Your task to perform on an android device: Open the calendar app, open the side menu, and click the "Day" option Image 0: 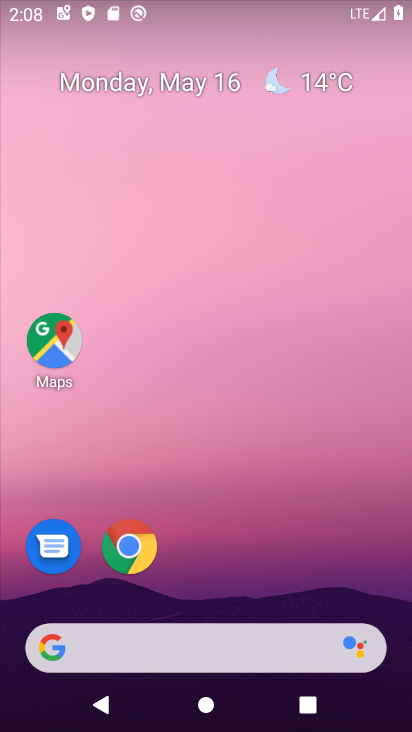
Step 0: drag from (231, 677) to (230, 256)
Your task to perform on an android device: Open the calendar app, open the side menu, and click the "Day" option Image 1: 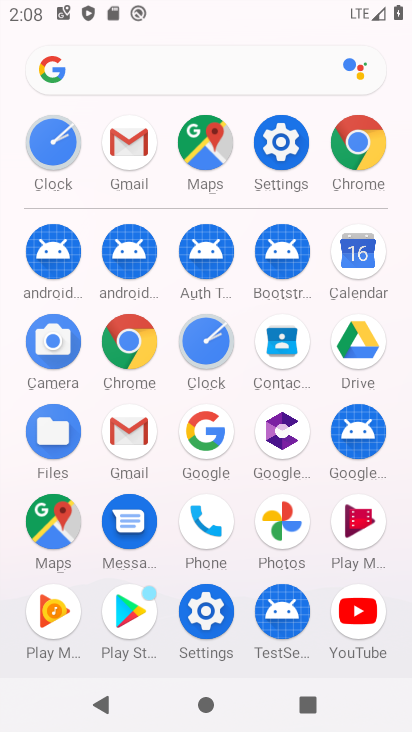
Step 1: click (369, 260)
Your task to perform on an android device: Open the calendar app, open the side menu, and click the "Day" option Image 2: 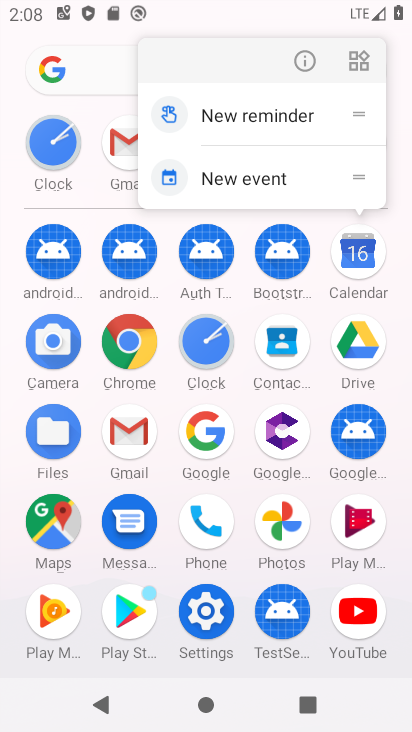
Step 2: click (361, 270)
Your task to perform on an android device: Open the calendar app, open the side menu, and click the "Day" option Image 3: 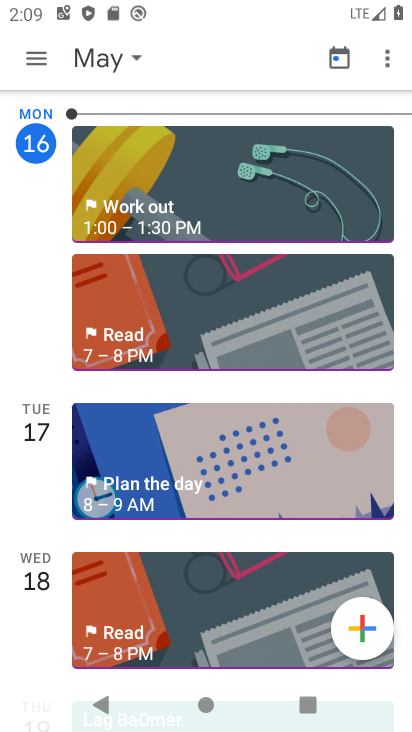
Step 3: click (36, 44)
Your task to perform on an android device: Open the calendar app, open the side menu, and click the "Day" option Image 4: 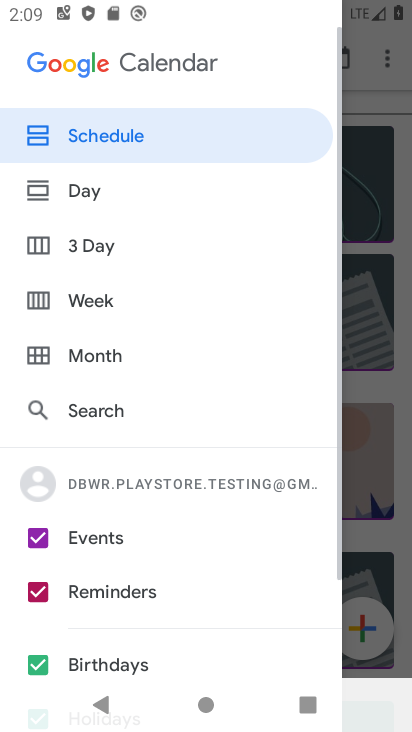
Step 4: click (115, 194)
Your task to perform on an android device: Open the calendar app, open the side menu, and click the "Day" option Image 5: 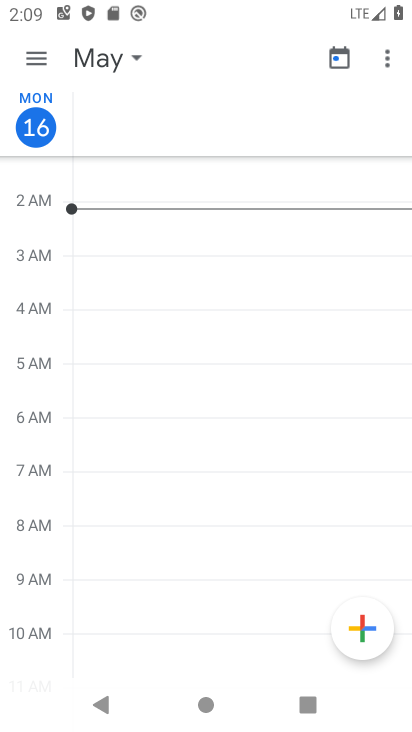
Step 5: task complete